Your task to perform on an android device: Open Wikipedia Image 0: 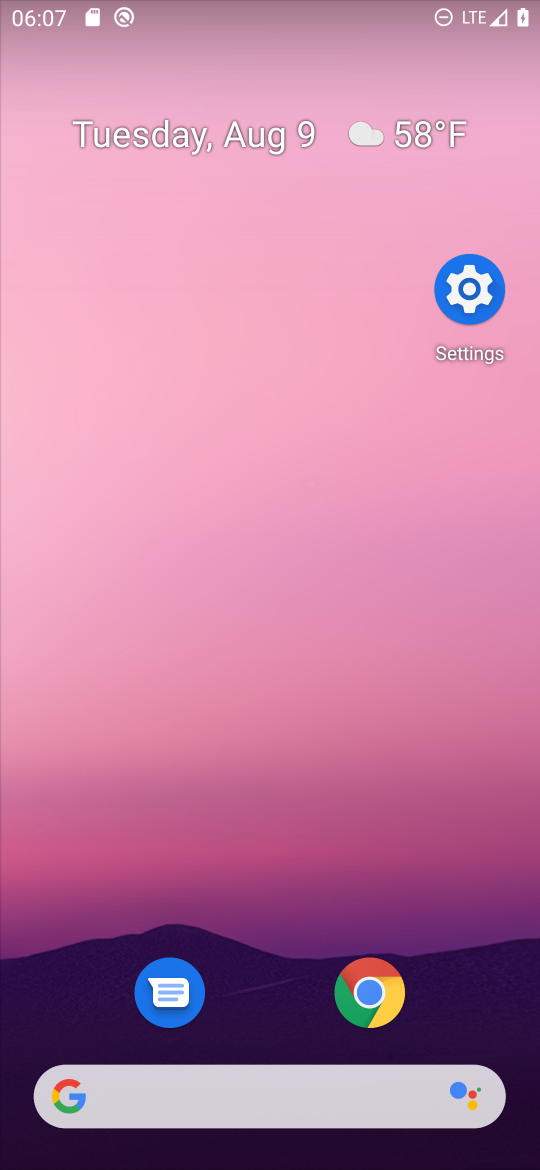
Step 0: drag from (248, 554) to (396, 17)
Your task to perform on an android device: Open Wikipedia Image 1: 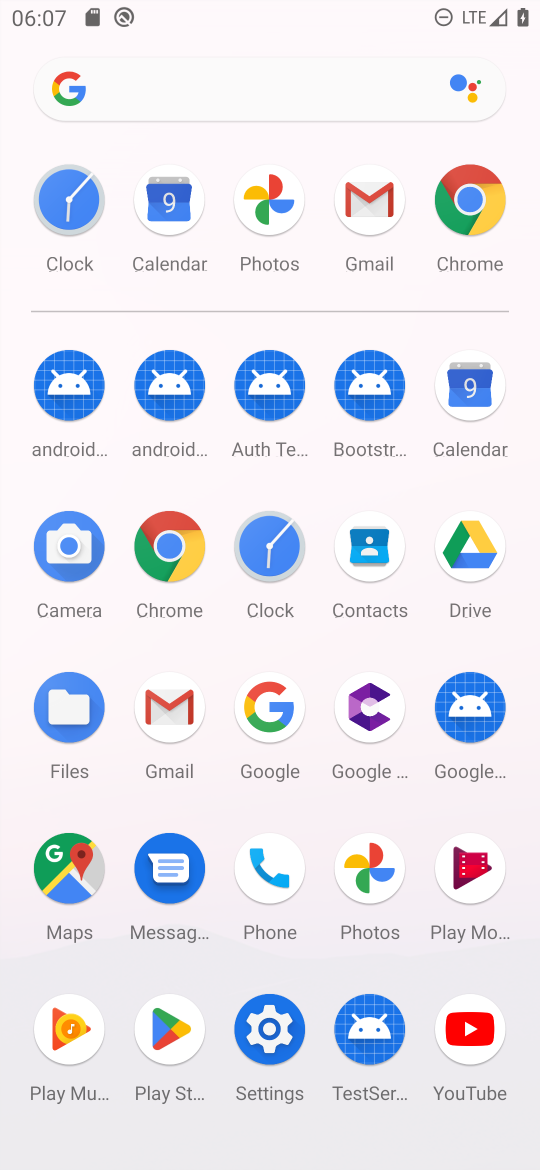
Step 1: click (184, 559)
Your task to perform on an android device: Open Wikipedia Image 2: 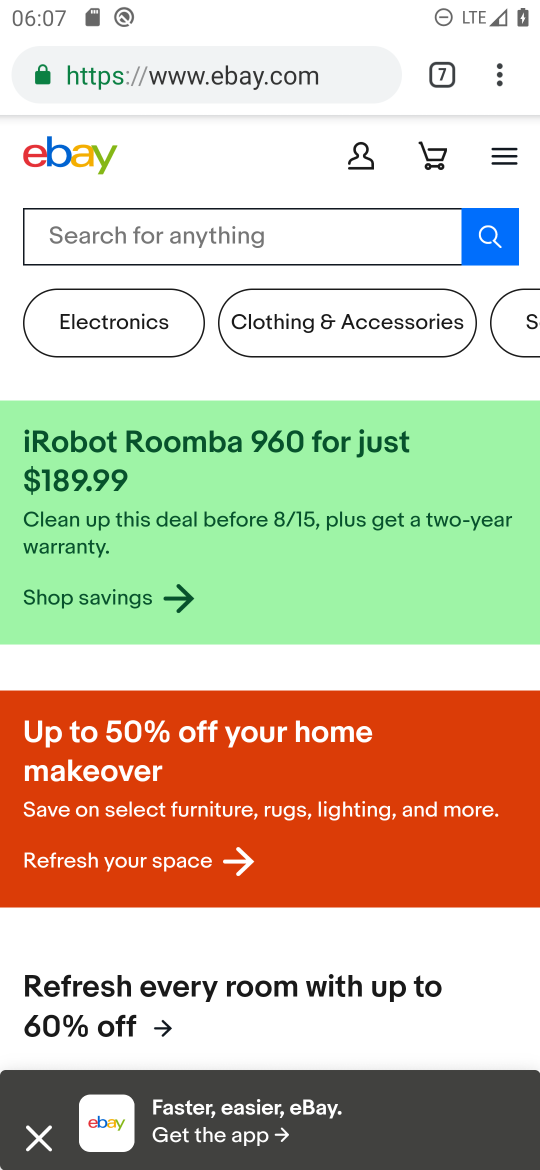
Step 2: click (167, 544)
Your task to perform on an android device: Open Wikipedia Image 3: 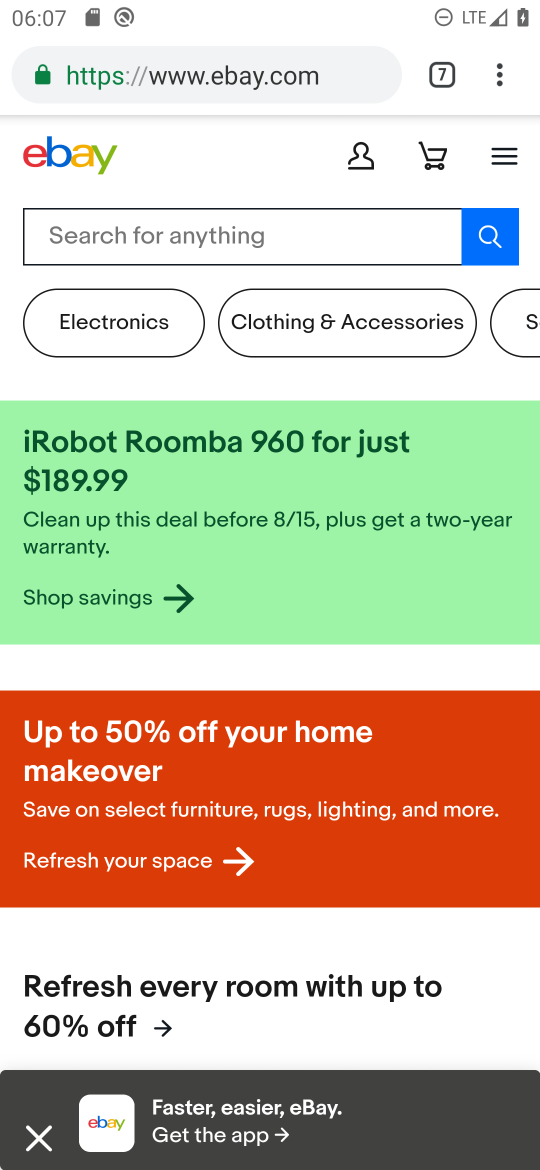
Step 3: click (503, 69)
Your task to perform on an android device: Open Wikipedia Image 4: 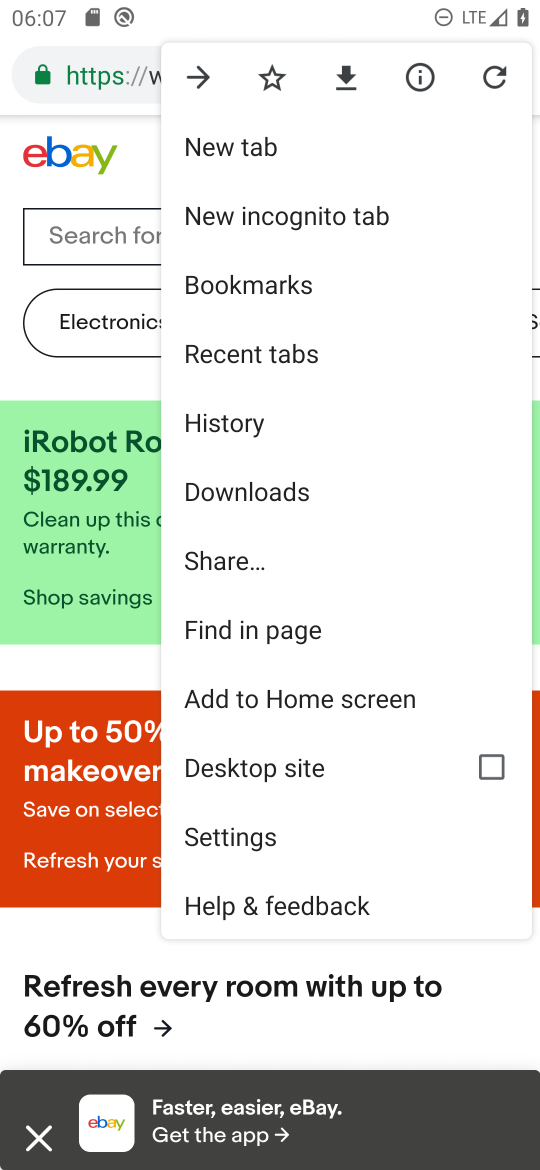
Step 4: click (269, 153)
Your task to perform on an android device: Open Wikipedia Image 5: 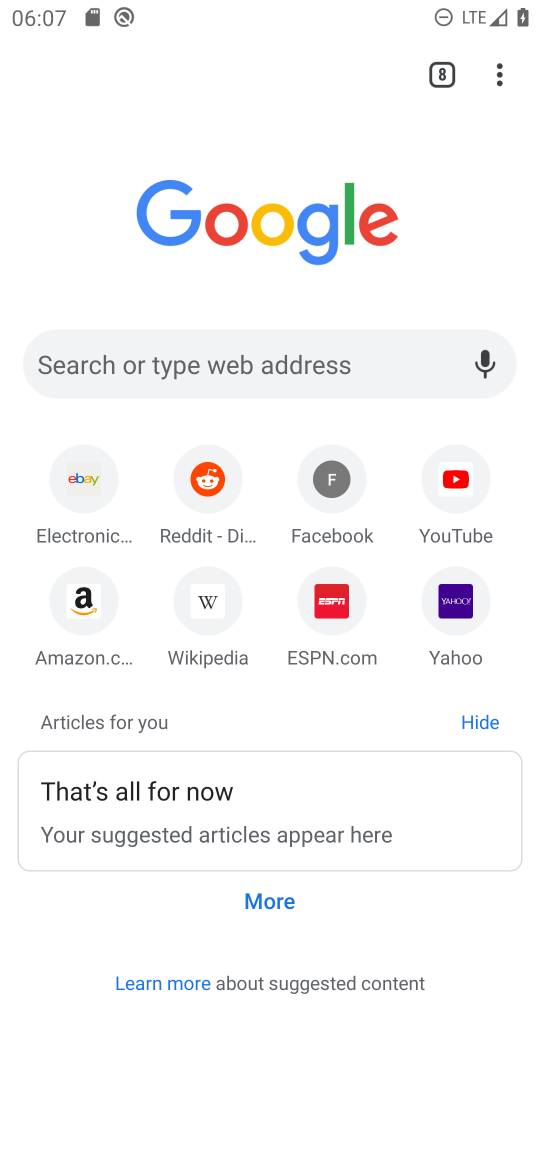
Step 5: click (207, 606)
Your task to perform on an android device: Open Wikipedia Image 6: 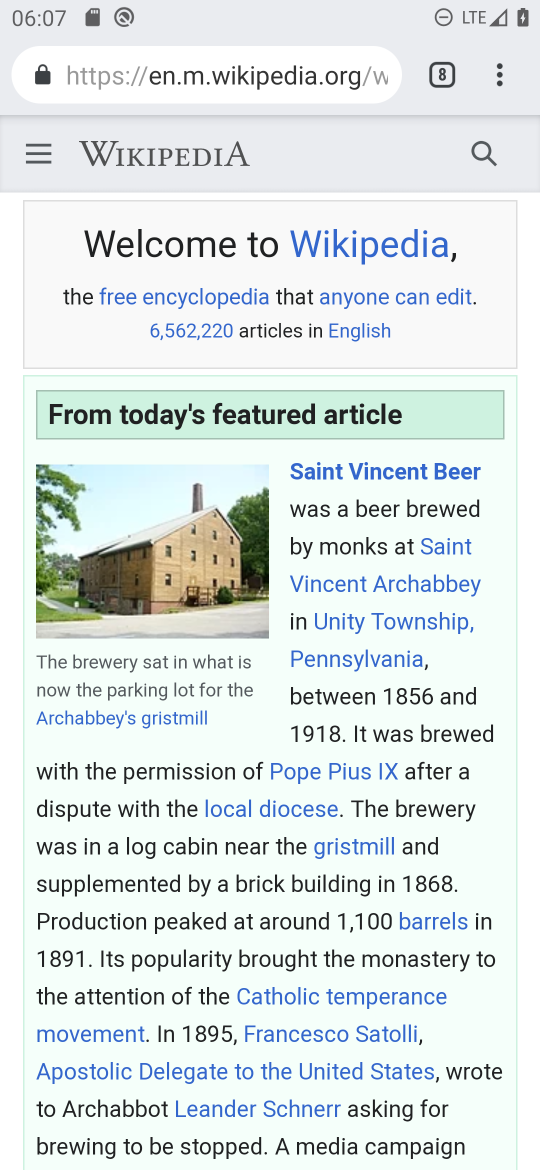
Step 6: task complete